Your task to perform on an android device: Open calendar and show me the fourth week of next month Image 0: 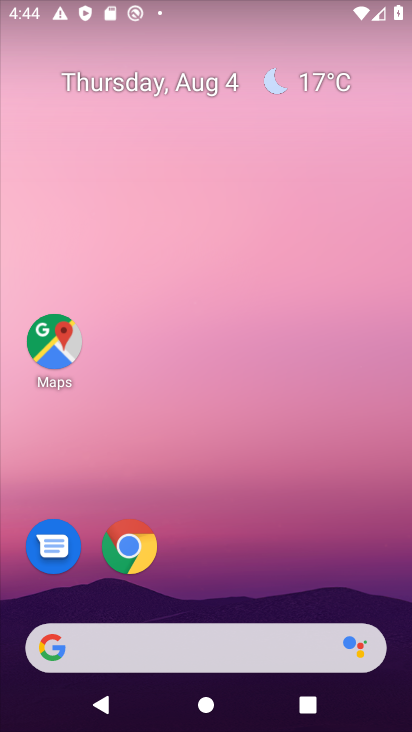
Step 0: drag from (202, 572) to (205, 168)
Your task to perform on an android device: Open calendar and show me the fourth week of next month Image 1: 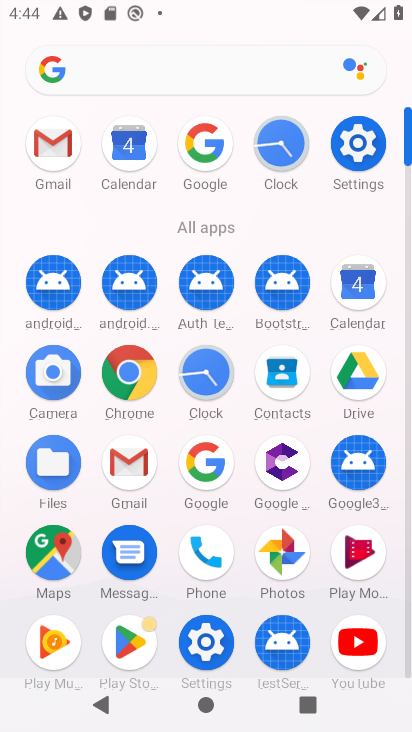
Step 1: click (353, 308)
Your task to perform on an android device: Open calendar and show me the fourth week of next month Image 2: 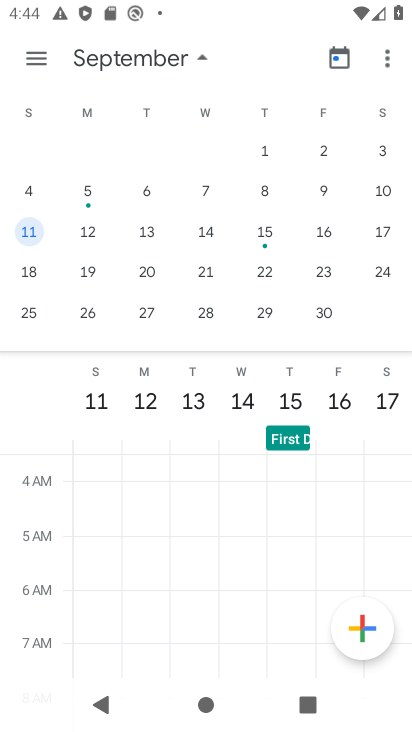
Step 2: click (26, 276)
Your task to perform on an android device: Open calendar and show me the fourth week of next month Image 3: 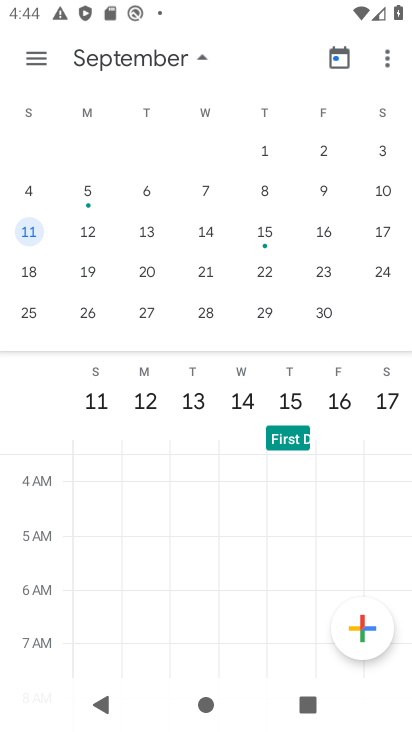
Step 3: click (26, 276)
Your task to perform on an android device: Open calendar and show me the fourth week of next month Image 4: 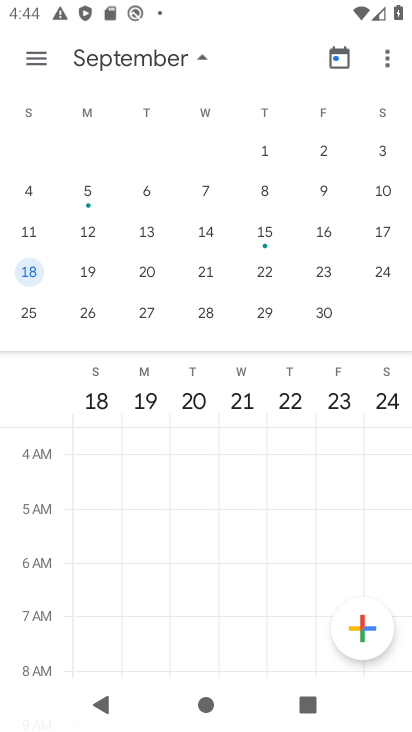
Step 4: task complete